Your task to perform on an android device: check storage Image 0: 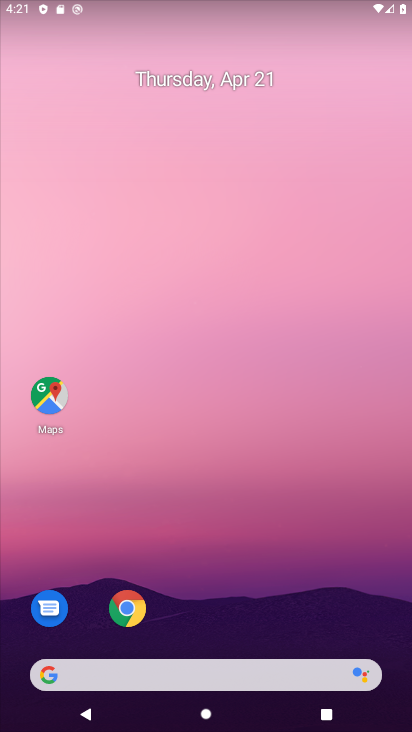
Step 0: drag from (260, 623) to (250, 278)
Your task to perform on an android device: check storage Image 1: 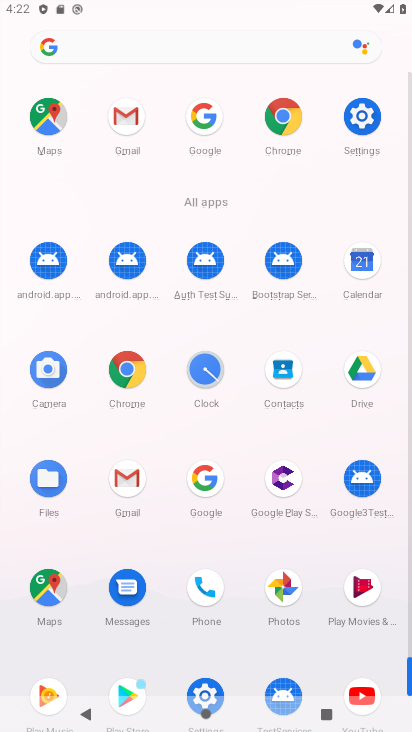
Step 1: click (369, 131)
Your task to perform on an android device: check storage Image 2: 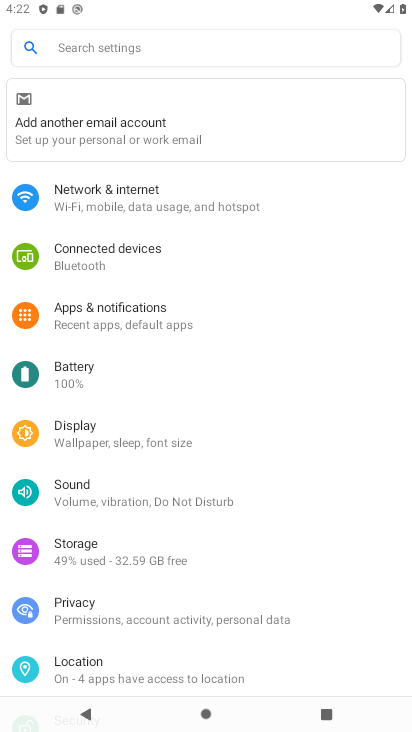
Step 2: click (78, 545)
Your task to perform on an android device: check storage Image 3: 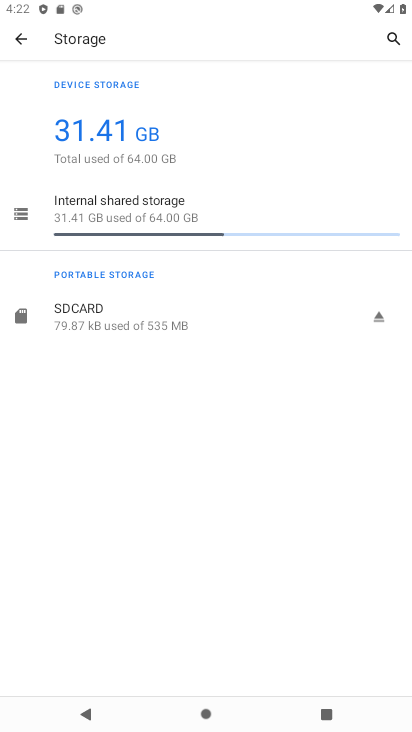
Step 3: task complete